Your task to perform on an android device: turn on the 24-hour format for clock Image 0: 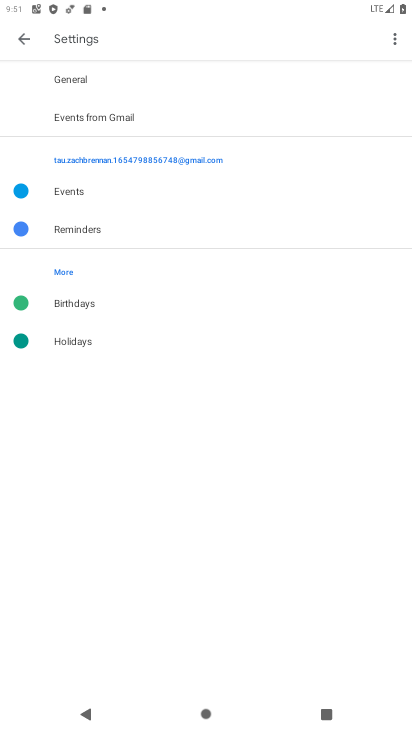
Step 0: press home button
Your task to perform on an android device: turn on the 24-hour format for clock Image 1: 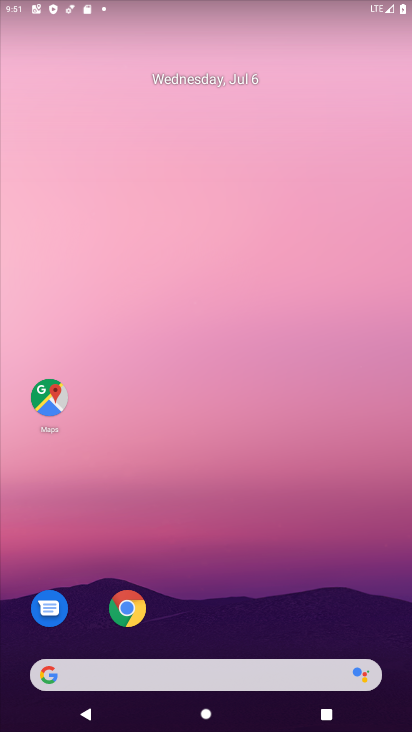
Step 1: drag from (222, 529) to (199, 139)
Your task to perform on an android device: turn on the 24-hour format for clock Image 2: 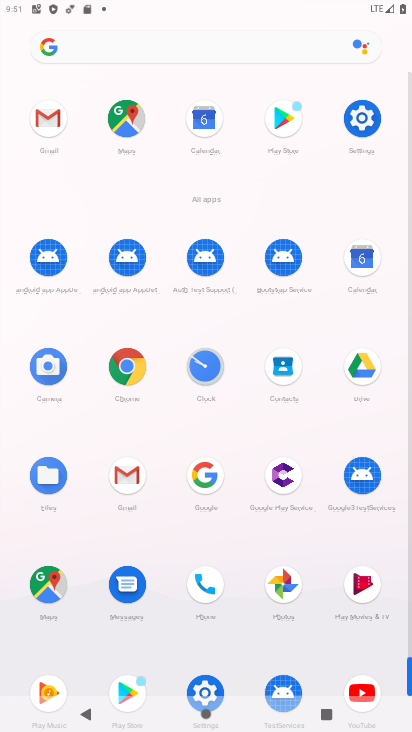
Step 2: click (206, 361)
Your task to perform on an android device: turn on the 24-hour format for clock Image 3: 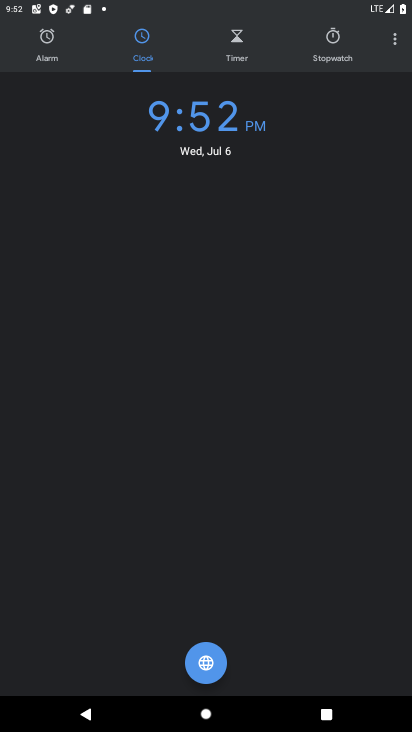
Step 3: click (398, 36)
Your task to perform on an android device: turn on the 24-hour format for clock Image 4: 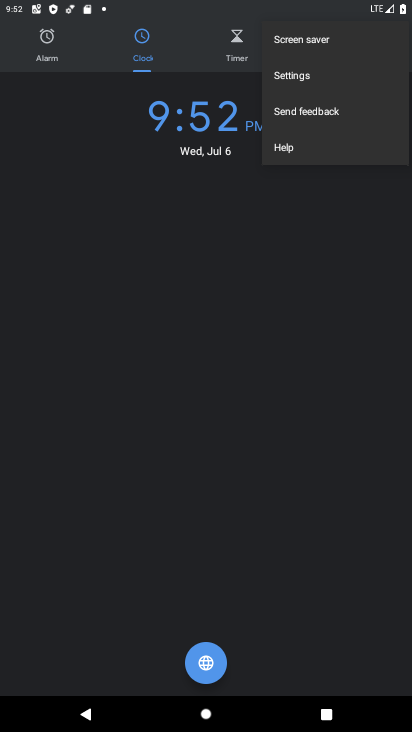
Step 4: click (295, 75)
Your task to perform on an android device: turn on the 24-hour format for clock Image 5: 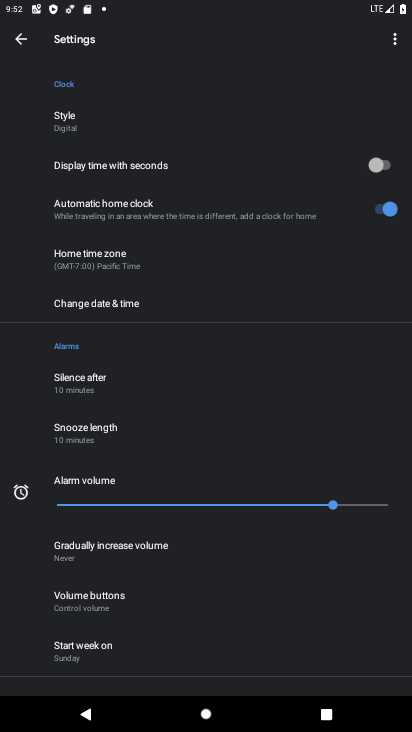
Step 5: click (101, 301)
Your task to perform on an android device: turn on the 24-hour format for clock Image 6: 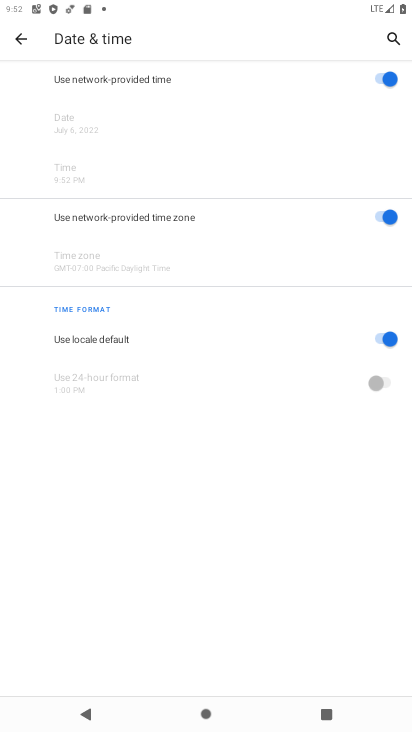
Step 6: click (388, 349)
Your task to perform on an android device: turn on the 24-hour format for clock Image 7: 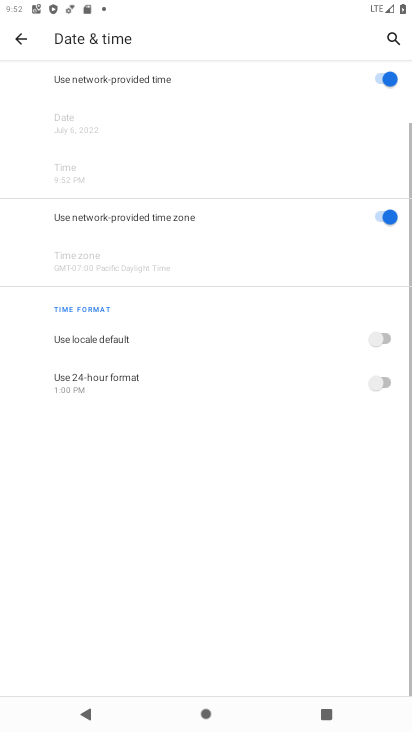
Step 7: click (379, 391)
Your task to perform on an android device: turn on the 24-hour format for clock Image 8: 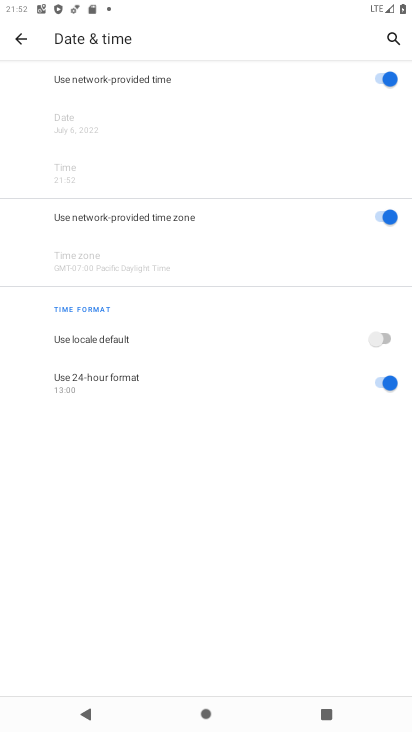
Step 8: task complete